Your task to perform on an android device: Do I have any events today? Image 0: 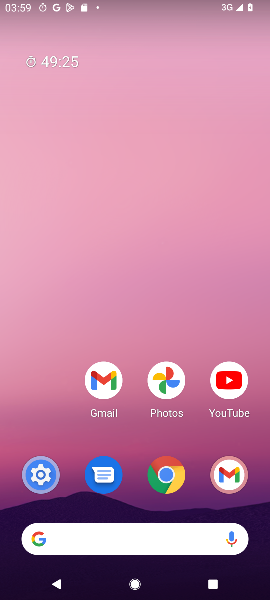
Step 0: press home button
Your task to perform on an android device: Do I have any events today? Image 1: 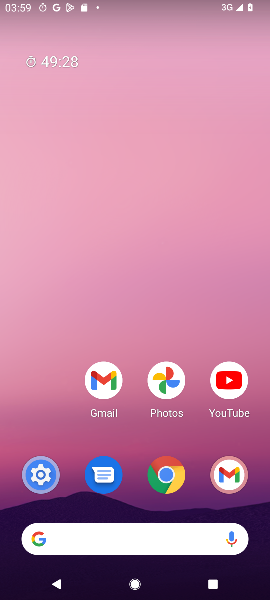
Step 1: drag from (62, 436) to (57, 155)
Your task to perform on an android device: Do I have any events today? Image 2: 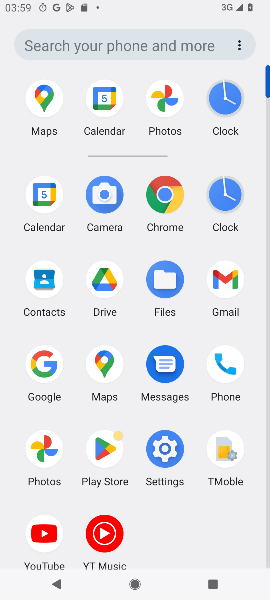
Step 2: click (42, 199)
Your task to perform on an android device: Do I have any events today? Image 3: 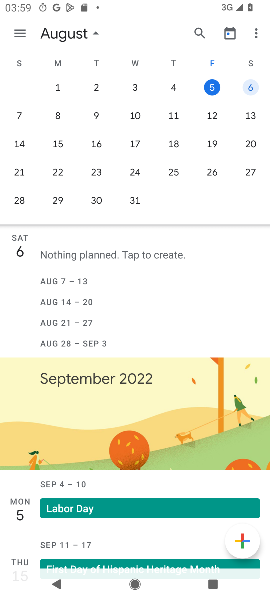
Step 3: task complete